Your task to perform on an android device: Show me productivity apps on the Play Store Image 0: 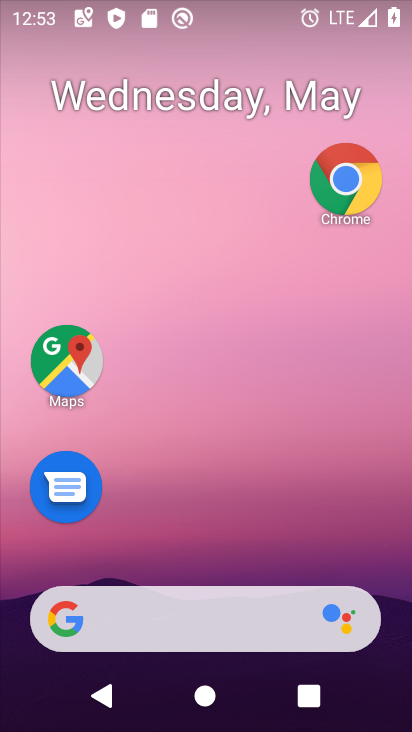
Step 0: drag from (207, 579) to (212, 100)
Your task to perform on an android device: Show me productivity apps on the Play Store Image 1: 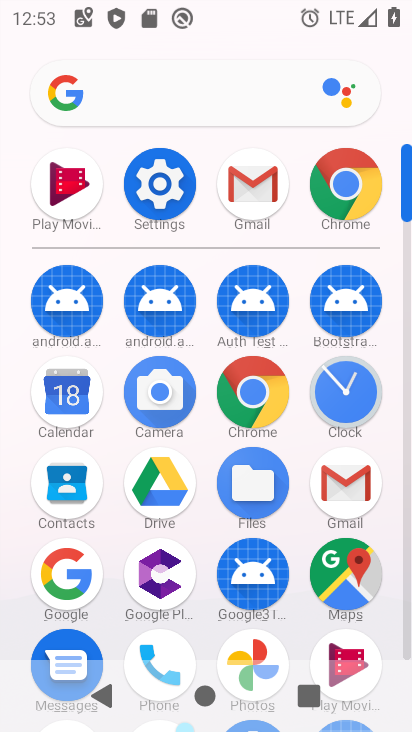
Step 1: drag from (203, 616) to (207, 279)
Your task to perform on an android device: Show me productivity apps on the Play Store Image 2: 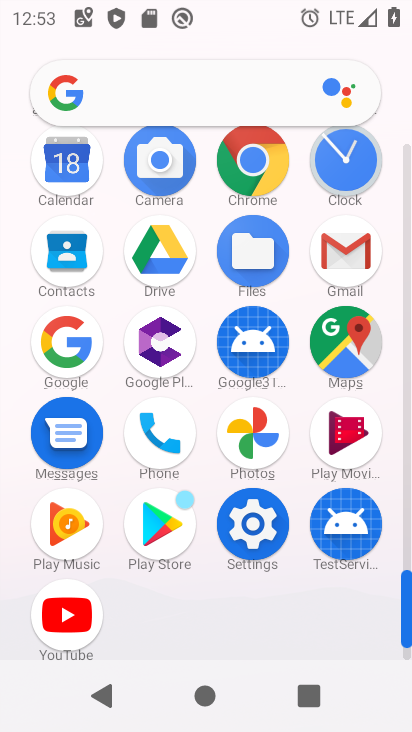
Step 2: click (151, 501)
Your task to perform on an android device: Show me productivity apps on the Play Store Image 3: 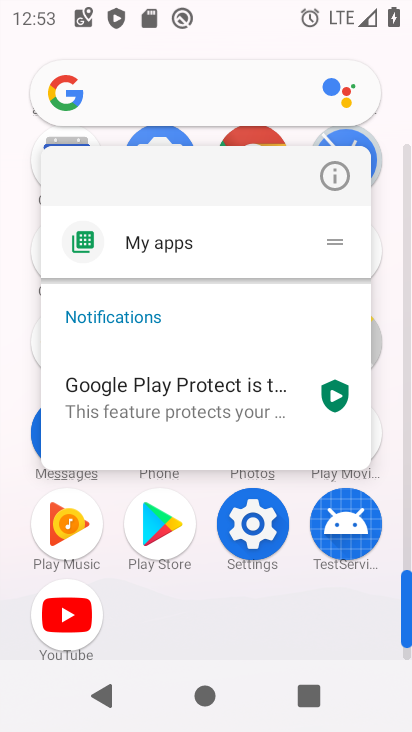
Step 3: click (334, 174)
Your task to perform on an android device: Show me productivity apps on the Play Store Image 4: 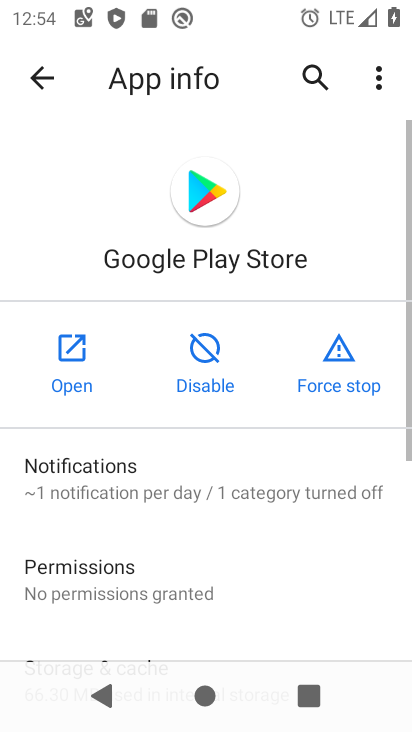
Step 4: click (49, 371)
Your task to perform on an android device: Show me productivity apps on the Play Store Image 5: 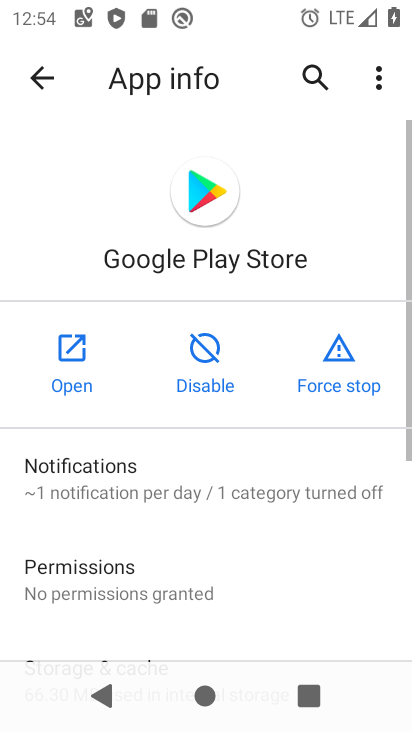
Step 5: click (49, 371)
Your task to perform on an android device: Show me productivity apps on the Play Store Image 6: 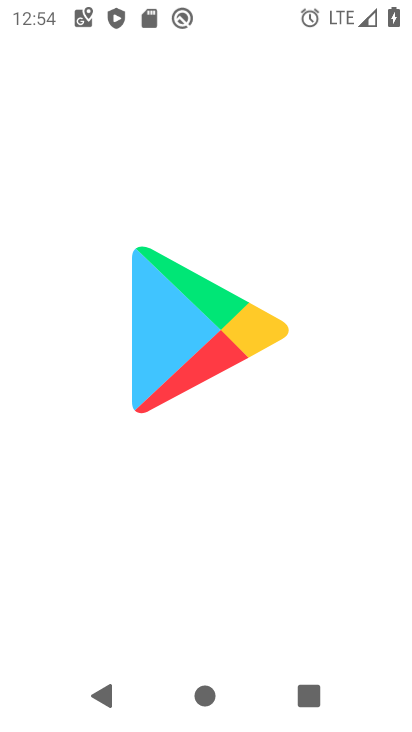
Step 6: drag from (262, 516) to (259, 208)
Your task to perform on an android device: Show me productivity apps on the Play Store Image 7: 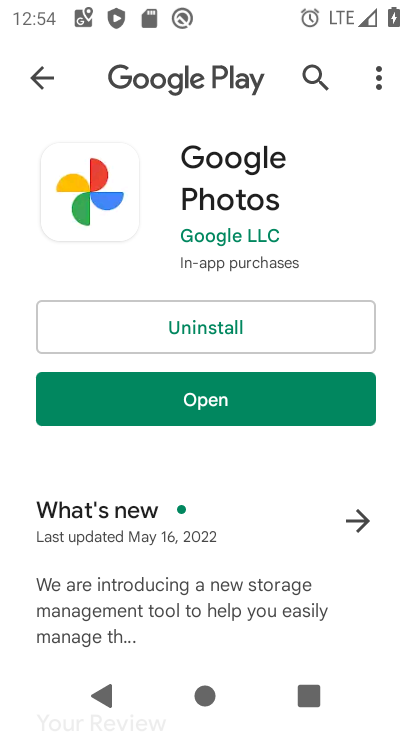
Step 7: click (48, 62)
Your task to perform on an android device: Show me productivity apps on the Play Store Image 8: 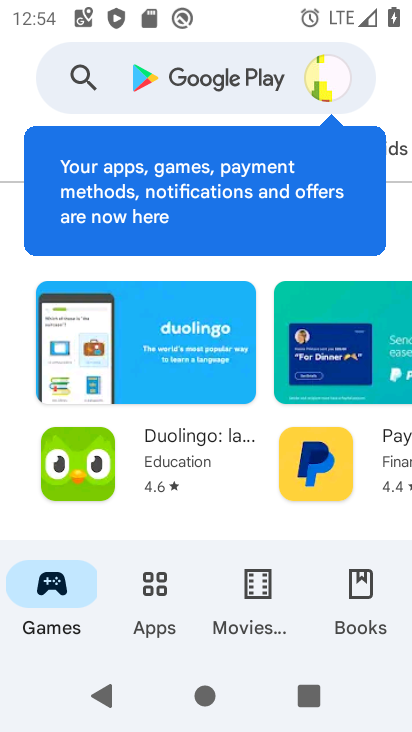
Step 8: task complete